Your task to perform on an android device: open app "ZOOM Cloud Meetings" (install if not already installed) Image 0: 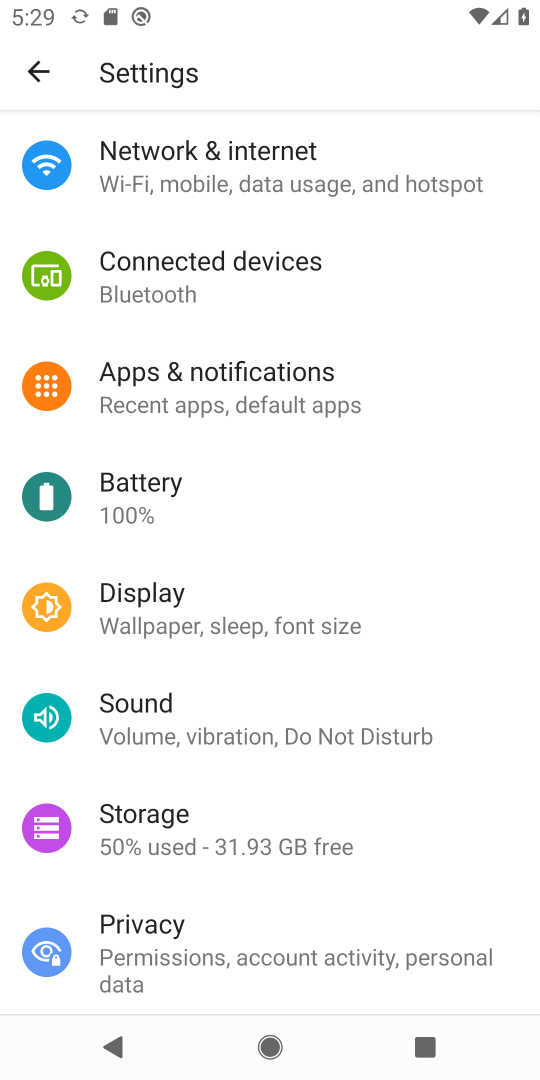
Step 0: press home button
Your task to perform on an android device: open app "ZOOM Cloud Meetings" (install if not already installed) Image 1: 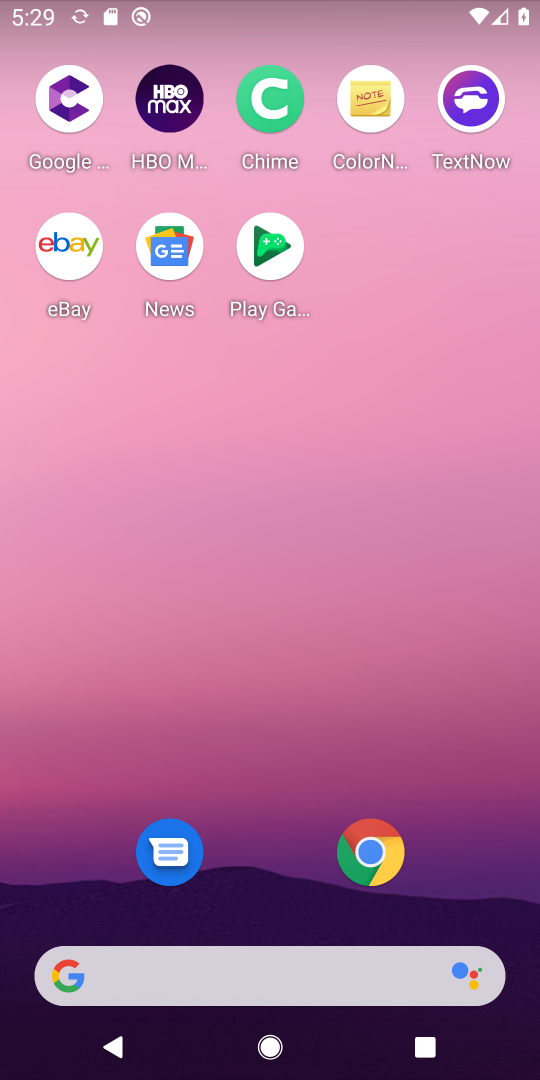
Step 1: drag from (263, 966) to (335, 59)
Your task to perform on an android device: open app "ZOOM Cloud Meetings" (install if not already installed) Image 2: 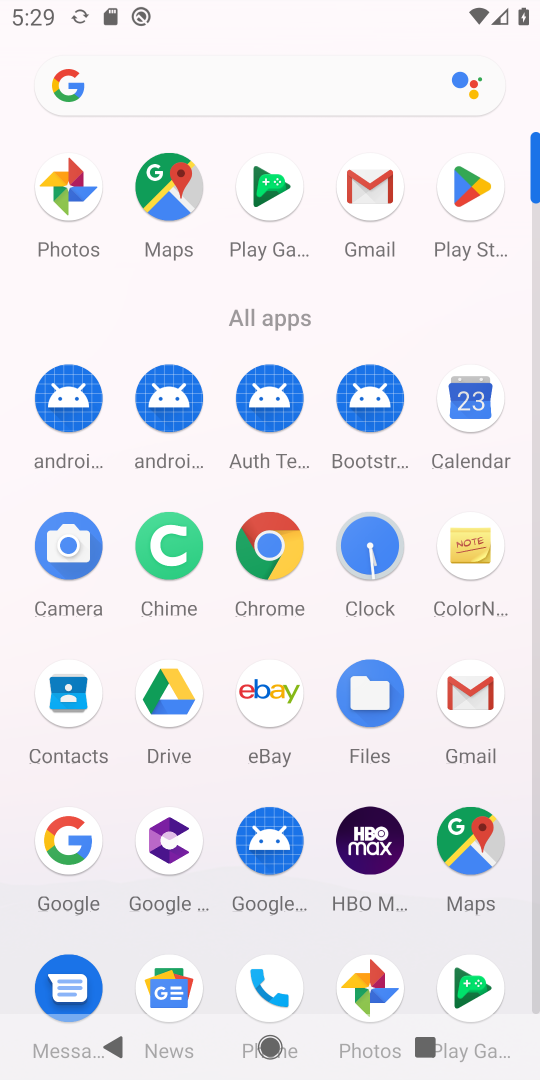
Step 2: click (477, 192)
Your task to perform on an android device: open app "ZOOM Cloud Meetings" (install if not already installed) Image 3: 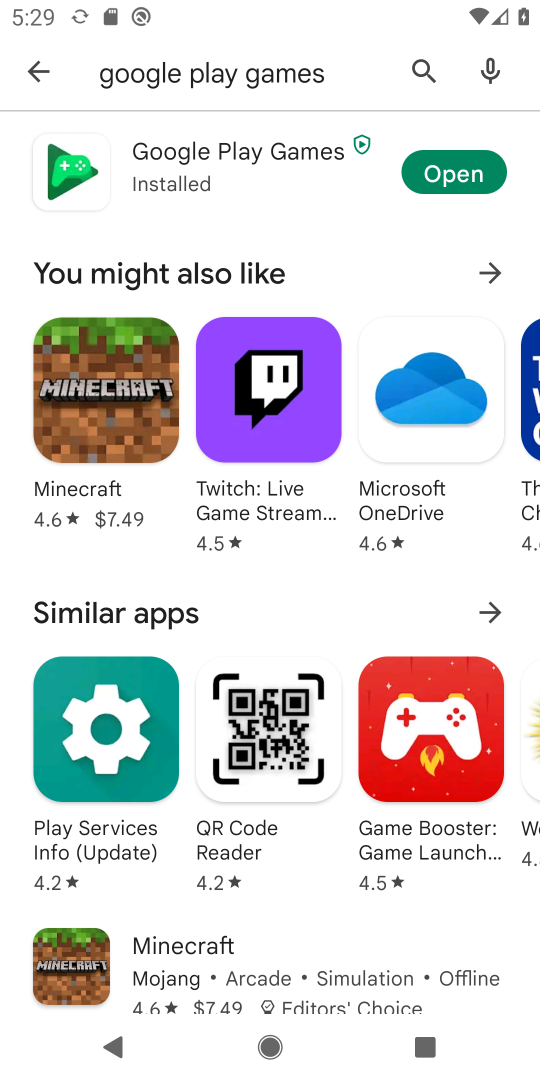
Step 3: press back button
Your task to perform on an android device: open app "ZOOM Cloud Meetings" (install if not already installed) Image 4: 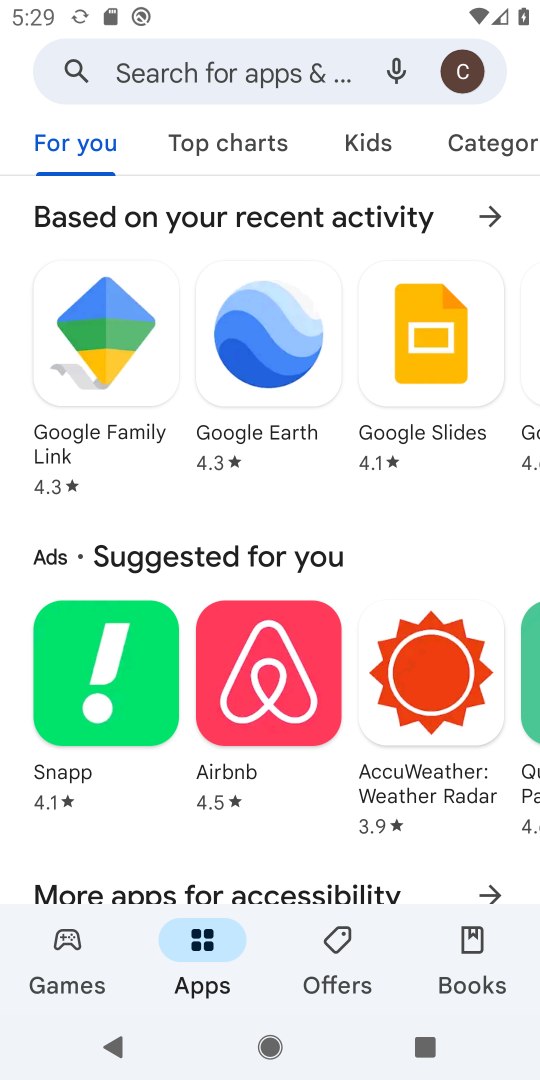
Step 4: click (180, 71)
Your task to perform on an android device: open app "ZOOM Cloud Meetings" (install if not already installed) Image 5: 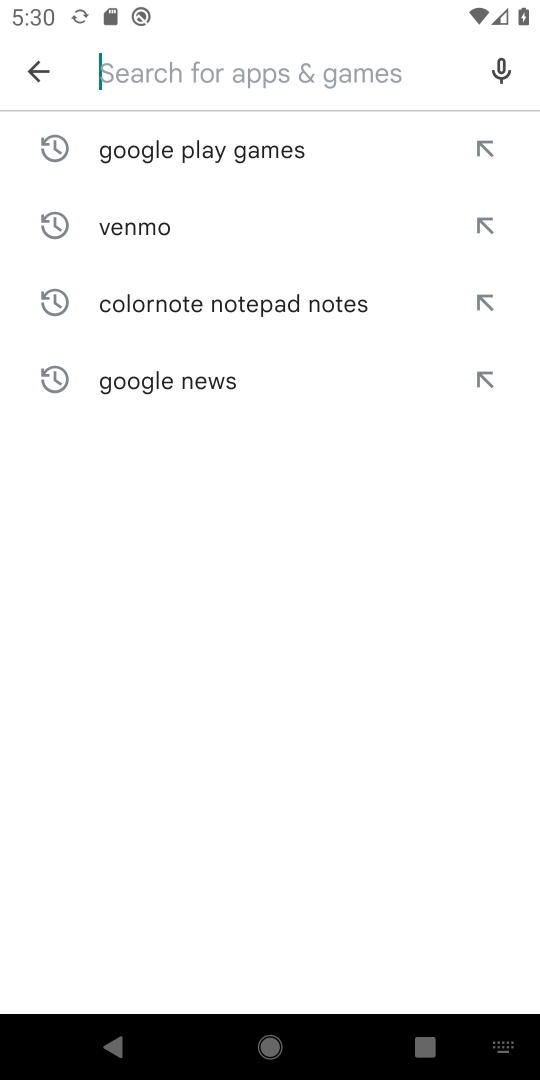
Step 5: type "ZOOM Cloud Meetings"
Your task to perform on an android device: open app "ZOOM Cloud Meetings" (install if not already installed) Image 6: 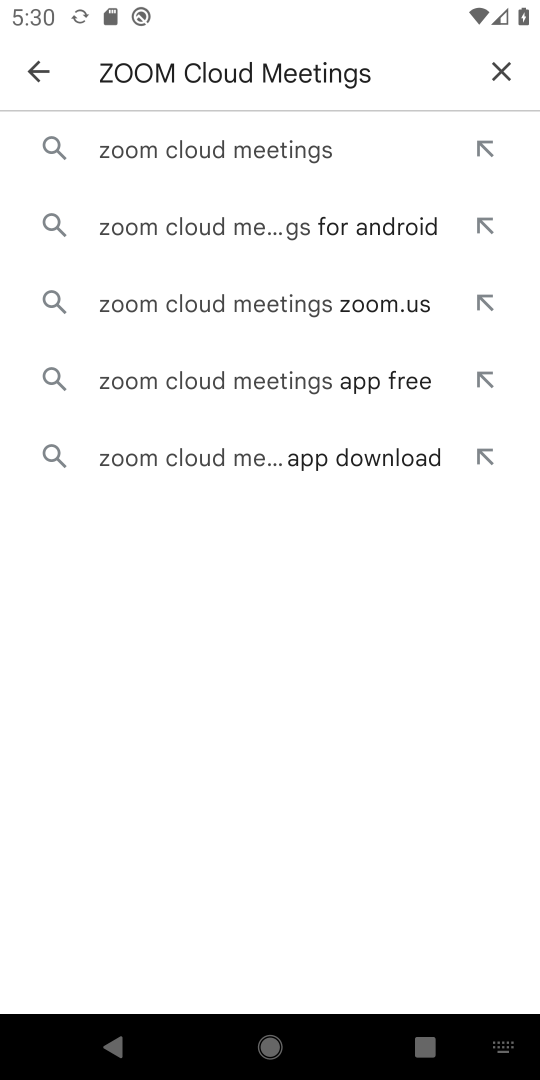
Step 6: click (298, 157)
Your task to perform on an android device: open app "ZOOM Cloud Meetings" (install if not already installed) Image 7: 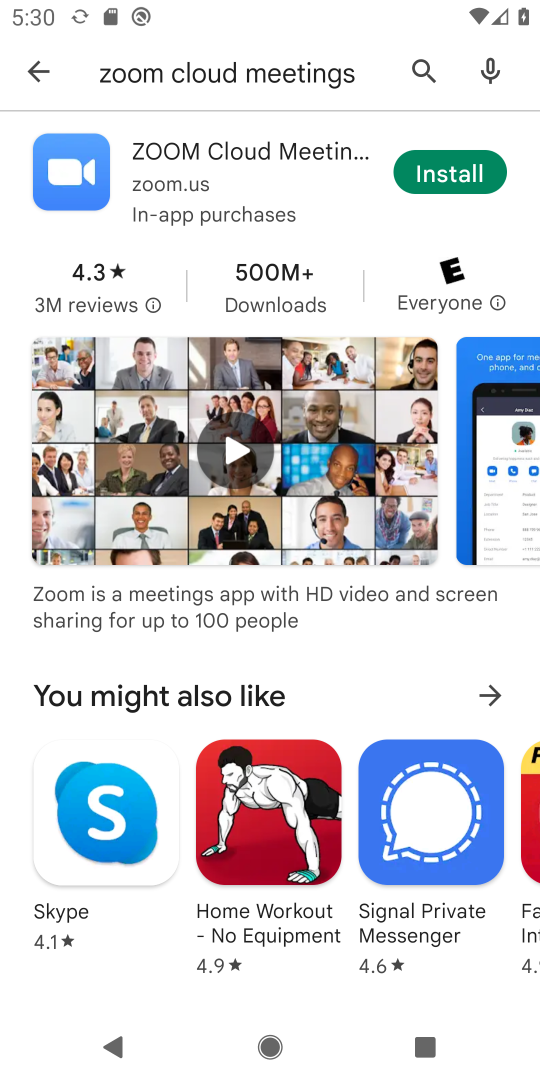
Step 7: click (463, 177)
Your task to perform on an android device: open app "ZOOM Cloud Meetings" (install if not already installed) Image 8: 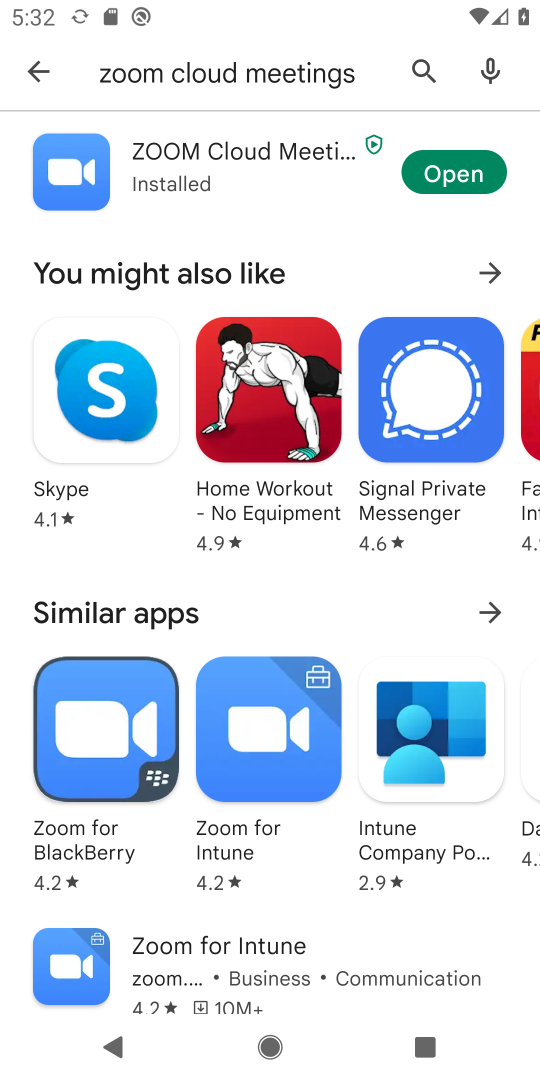
Step 8: click (463, 177)
Your task to perform on an android device: open app "ZOOM Cloud Meetings" (install if not already installed) Image 9: 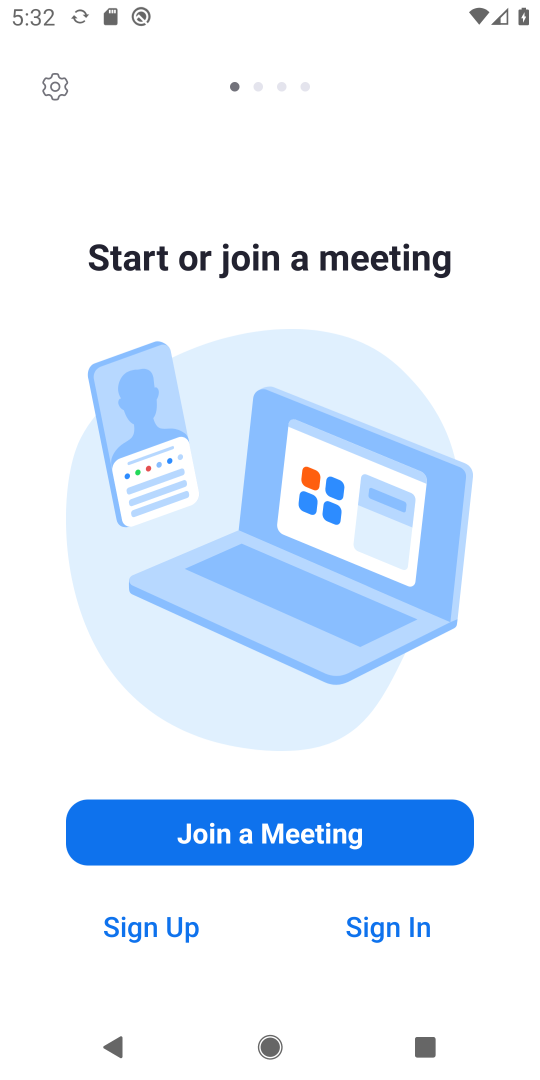
Step 9: task complete